Your task to perform on an android device: Open calendar and show me the third week of next month Image 0: 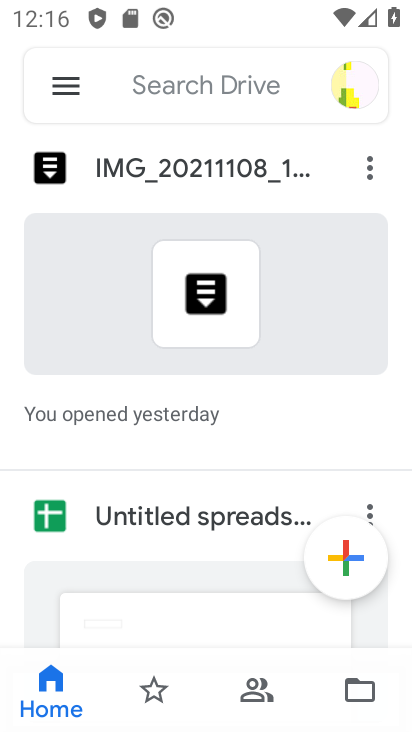
Step 0: press home button
Your task to perform on an android device: Open calendar and show me the third week of next month Image 1: 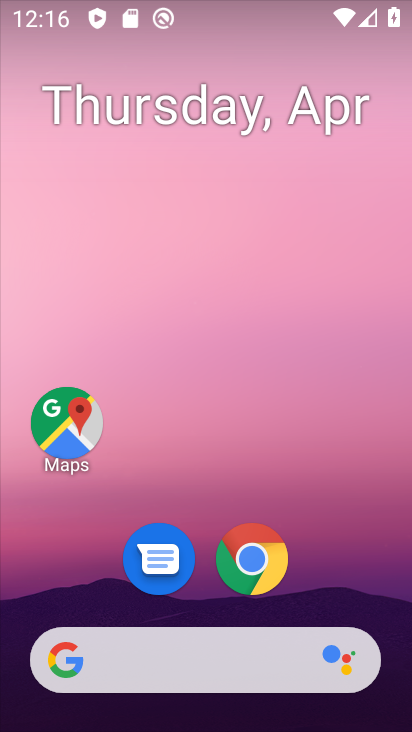
Step 1: drag from (256, 501) to (288, 271)
Your task to perform on an android device: Open calendar and show me the third week of next month Image 2: 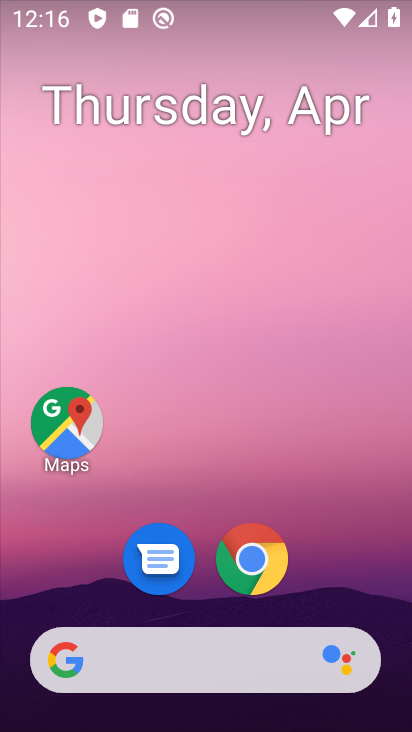
Step 2: drag from (278, 639) to (273, 147)
Your task to perform on an android device: Open calendar and show me the third week of next month Image 3: 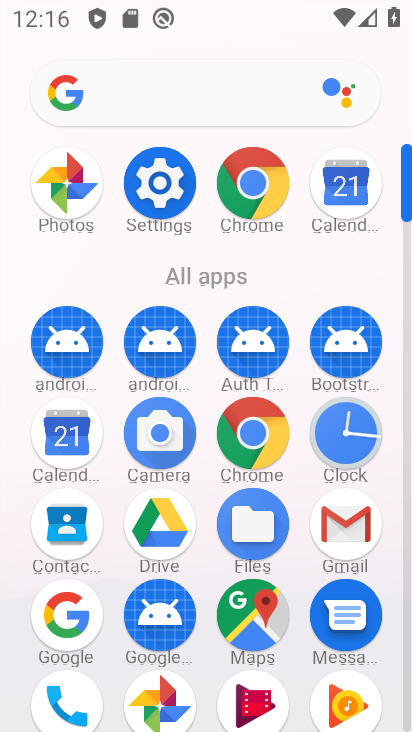
Step 3: click (58, 442)
Your task to perform on an android device: Open calendar and show me the third week of next month Image 4: 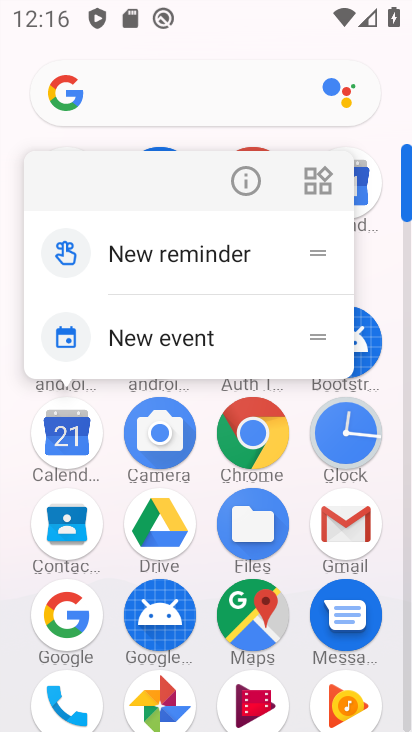
Step 4: click (78, 442)
Your task to perform on an android device: Open calendar and show me the third week of next month Image 5: 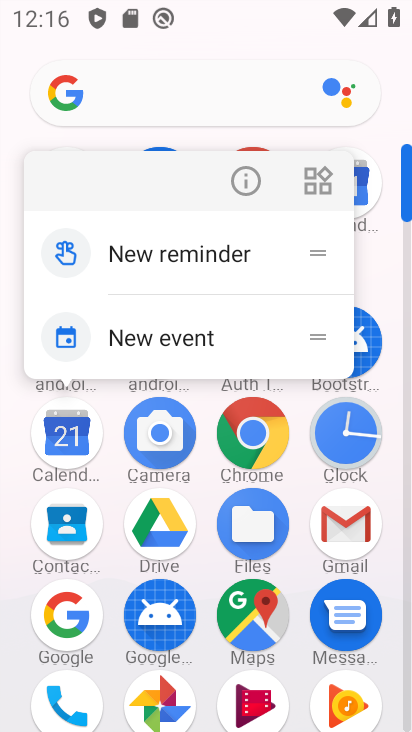
Step 5: click (78, 442)
Your task to perform on an android device: Open calendar and show me the third week of next month Image 6: 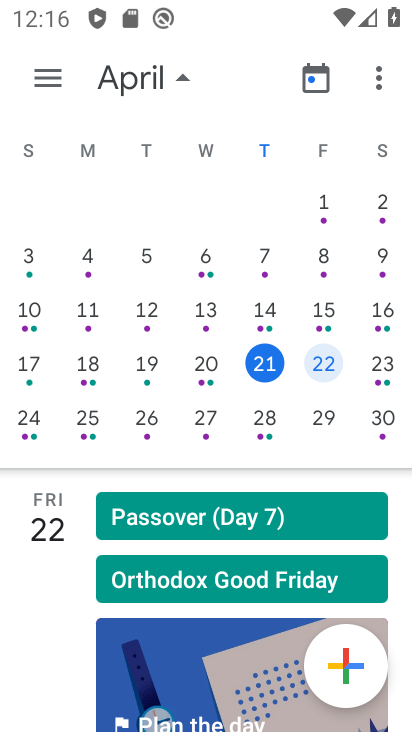
Step 6: drag from (332, 363) to (11, 355)
Your task to perform on an android device: Open calendar and show me the third week of next month Image 7: 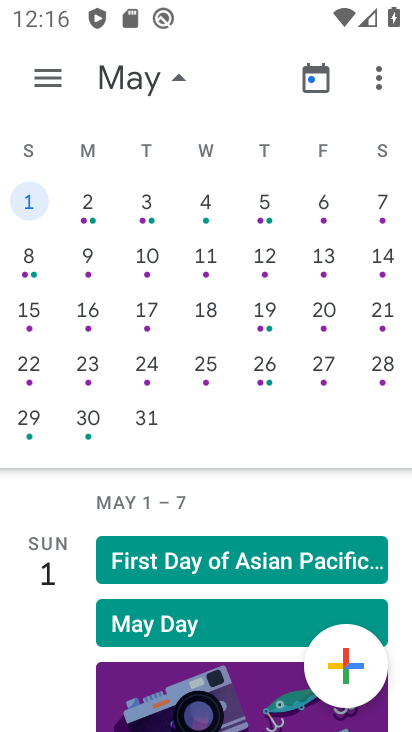
Step 7: click (208, 310)
Your task to perform on an android device: Open calendar and show me the third week of next month Image 8: 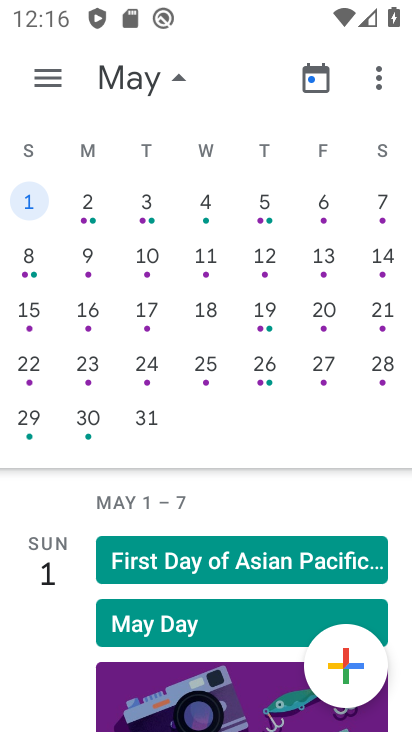
Step 8: task complete